Your task to perform on an android device: open app "Lyft - Rideshare, Bikes, Scooters & Transit" (install if not already installed) and go to login screen Image 0: 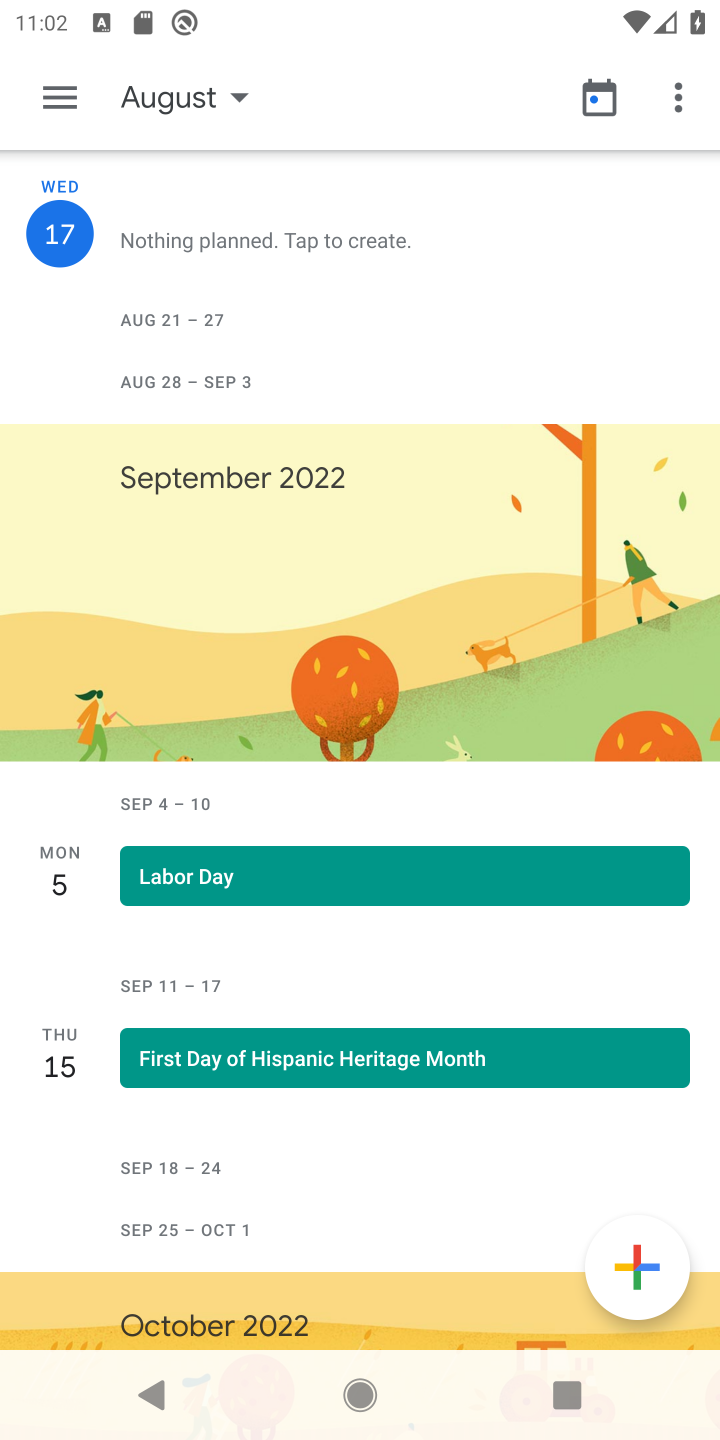
Step 0: press home button
Your task to perform on an android device: open app "Lyft - Rideshare, Bikes, Scooters & Transit" (install if not already installed) and go to login screen Image 1: 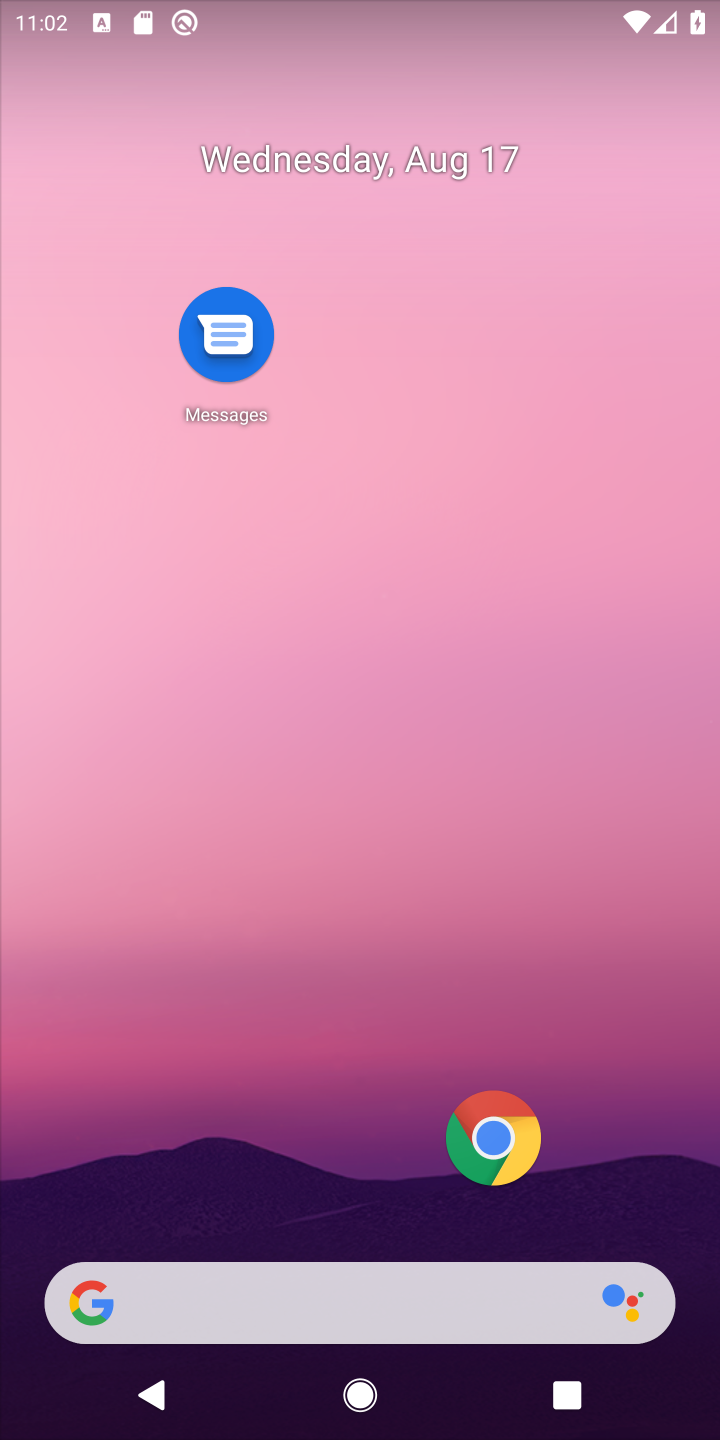
Step 1: drag from (230, 827) to (234, 494)
Your task to perform on an android device: open app "Lyft - Rideshare, Bikes, Scooters & Transit" (install if not already installed) and go to login screen Image 2: 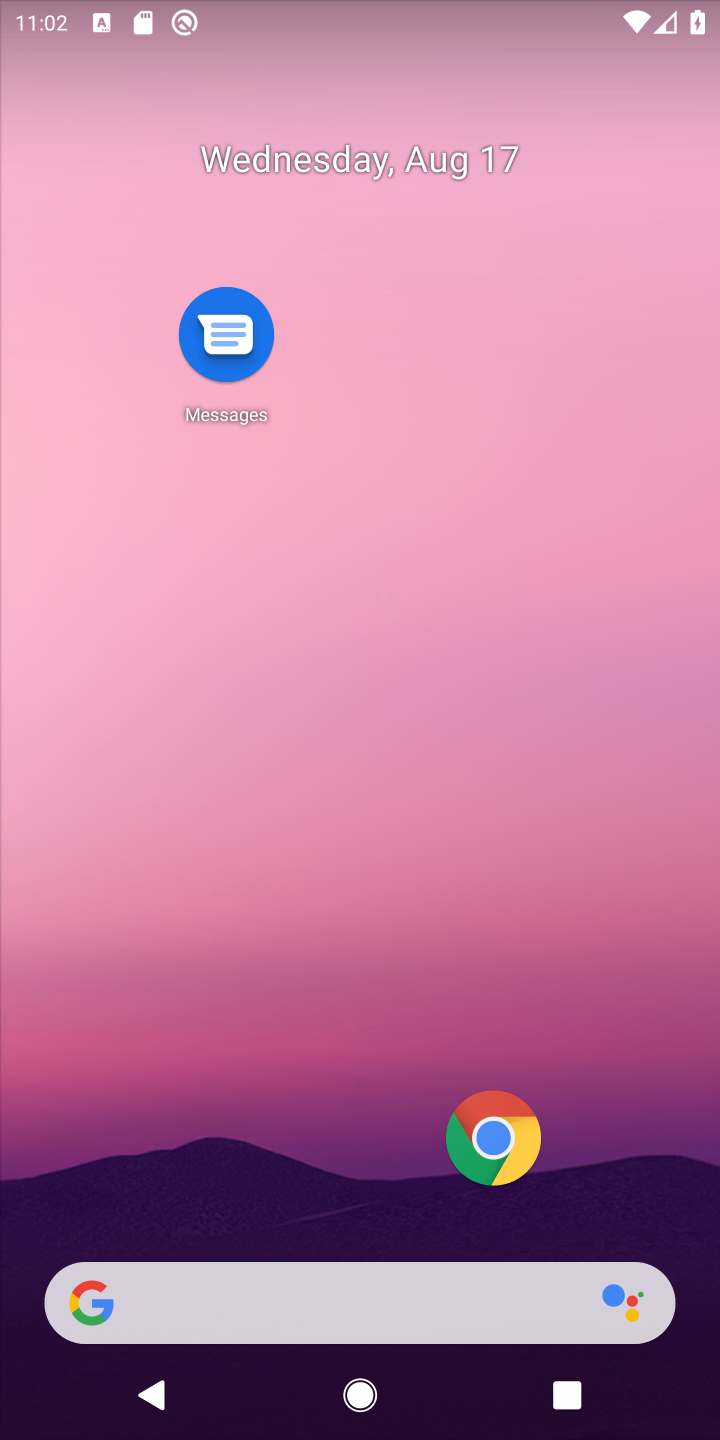
Step 2: drag from (329, 925) to (364, 108)
Your task to perform on an android device: open app "Lyft - Rideshare, Bikes, Scooters & Transit" (install if not already installed) and go to login screen Image 3: 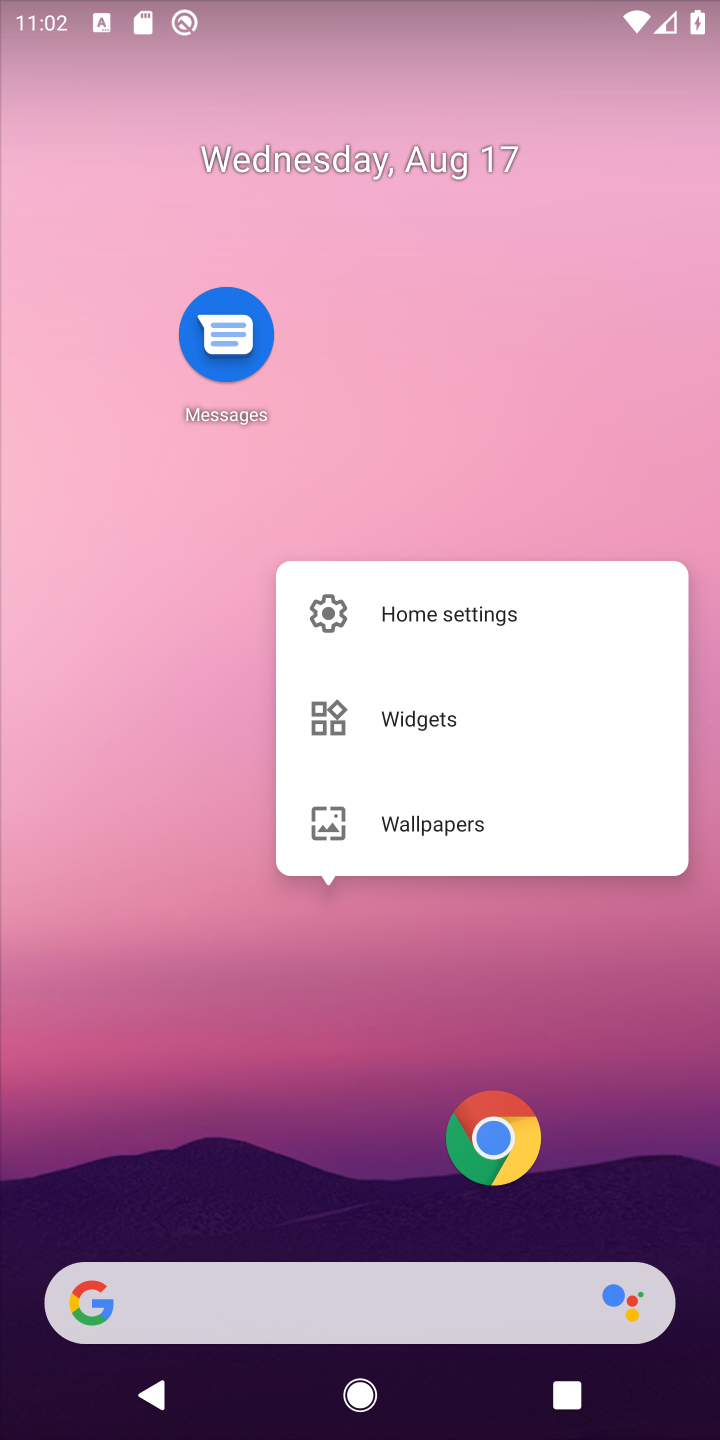
Step 3: click (133, 1084)
Your task to perform on an android device: open app "Lyft - Rideshare, Bikes, Scooters & Transit" (install if not already installed) and go to login screen Image 4: 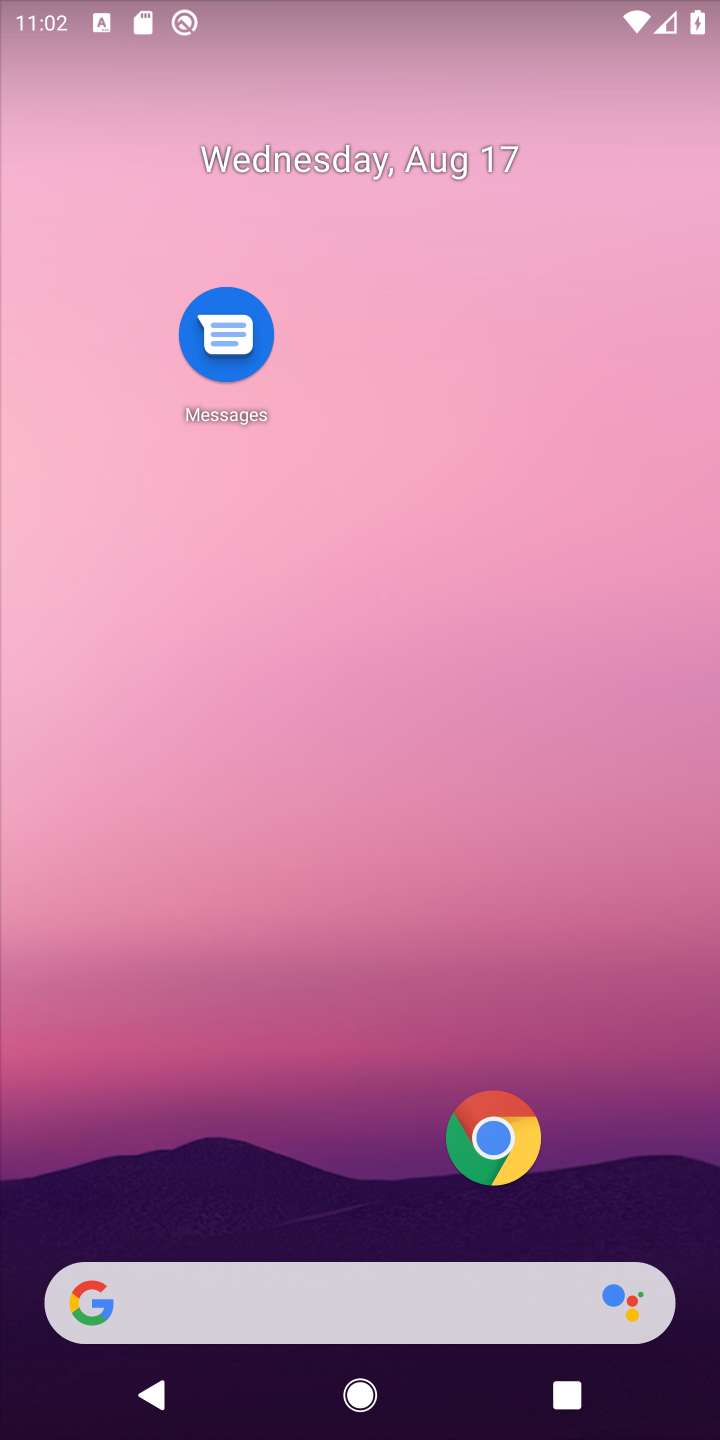
Step 4: drag from (339, 1184) to (359, 566)
Your task to perform on an android device: open app "Lyft - Rideshare, Bikes, Scooters & Transit" (install if not already installed) and go to login screen Image 5: 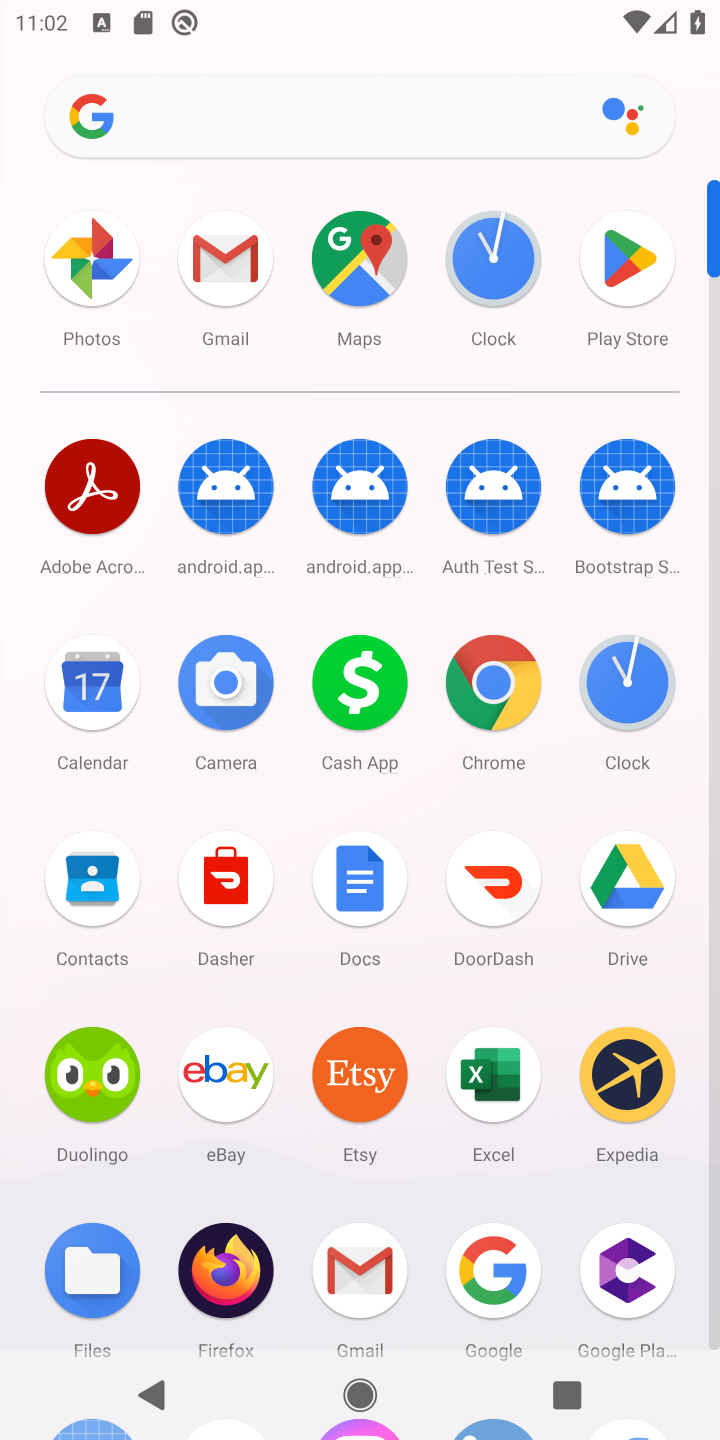
Step 5: click (635, 253)
Your task to perform on an android device: open app "Lyft - Rideshare, Bikes, Scooters & Transit" (install if not already installed) and go to login screen Image 6: 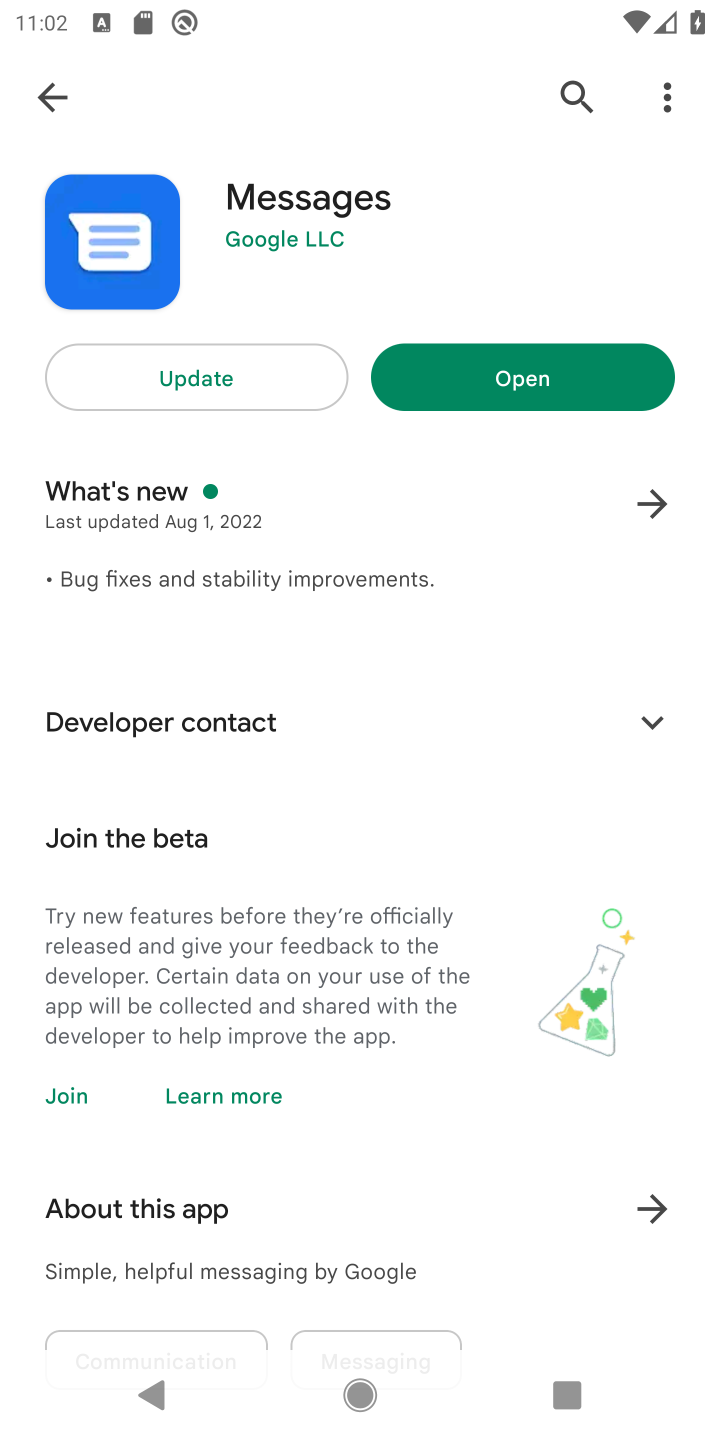
Step 6: click (44, 90)
Your task to perform on an android device: open app "Lyft - Rideshare, Bikes, Scooters & Transit" (install if not already installed) and go to login screen Image 7: 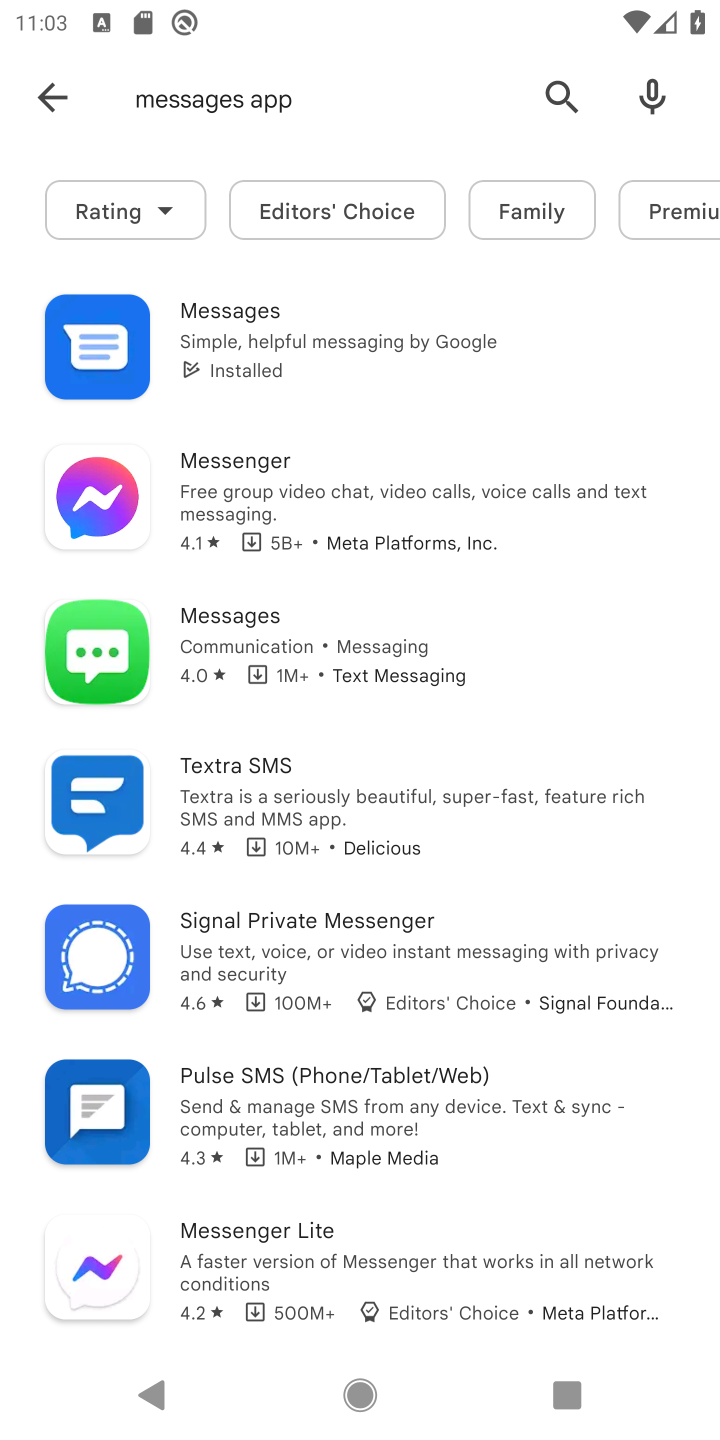
Step 7: click (68, 93)
Your task to perform on an android device: open app "Lyft - Rideshare, Bikes, Scooters & Transit" (install if not already installed) and go to login screen Image 8: 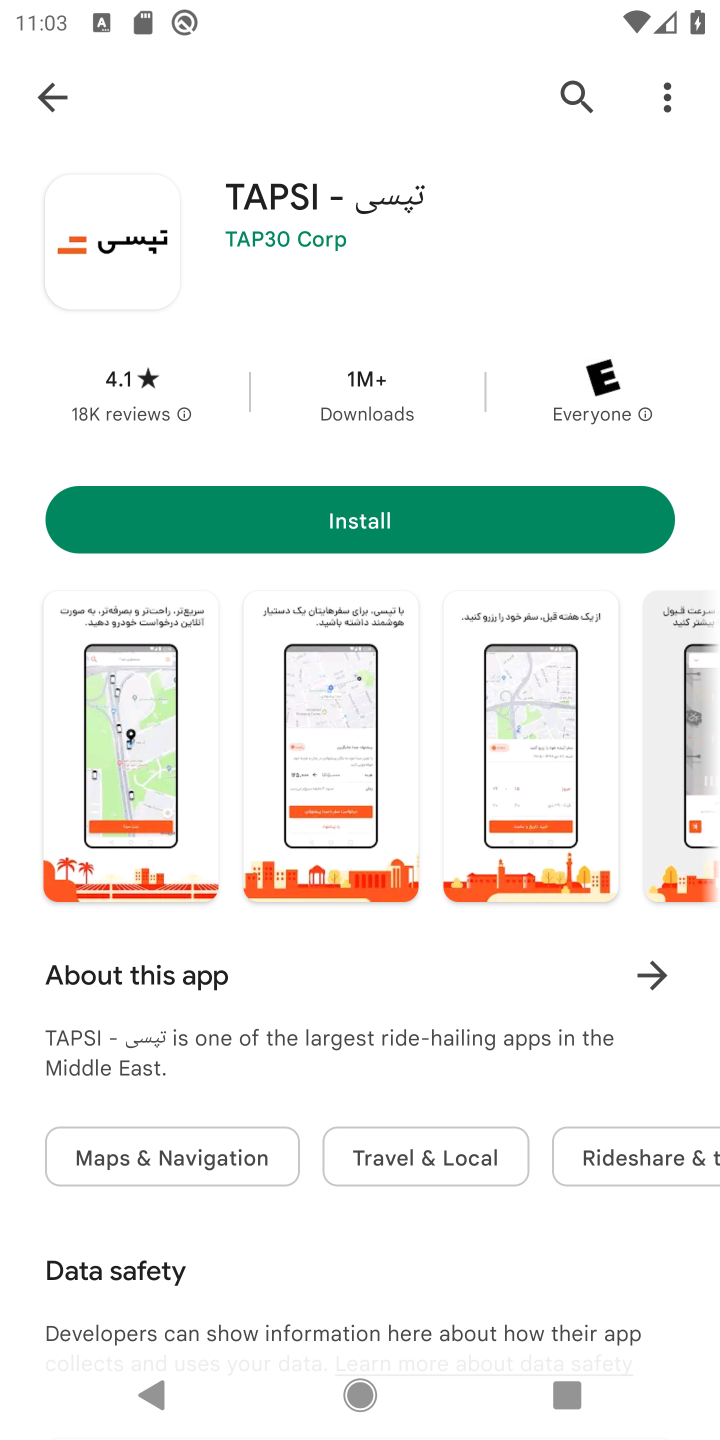
Step 8: click (68, 93)
Your task to perform on an android device: open app "Lyft - Rideshare, Bikes, Scooters & Transit" (install if not already installed) and go to login screen Image 9: 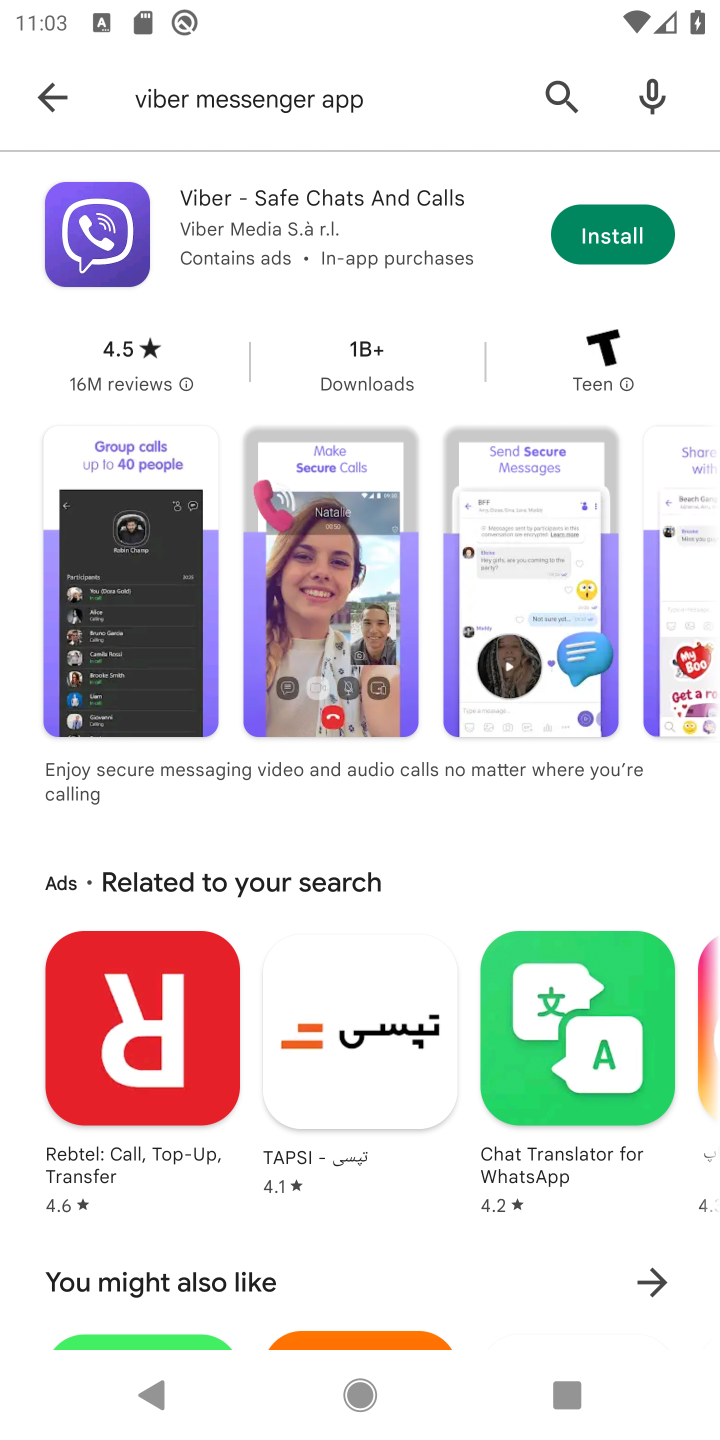
Step 9: click (68, 93)
Your task to perform on an android device: open app "Lyft - Rideshare, Bikes, Scooters & Transit" (install if not already installed) and go to login screen Image 10: 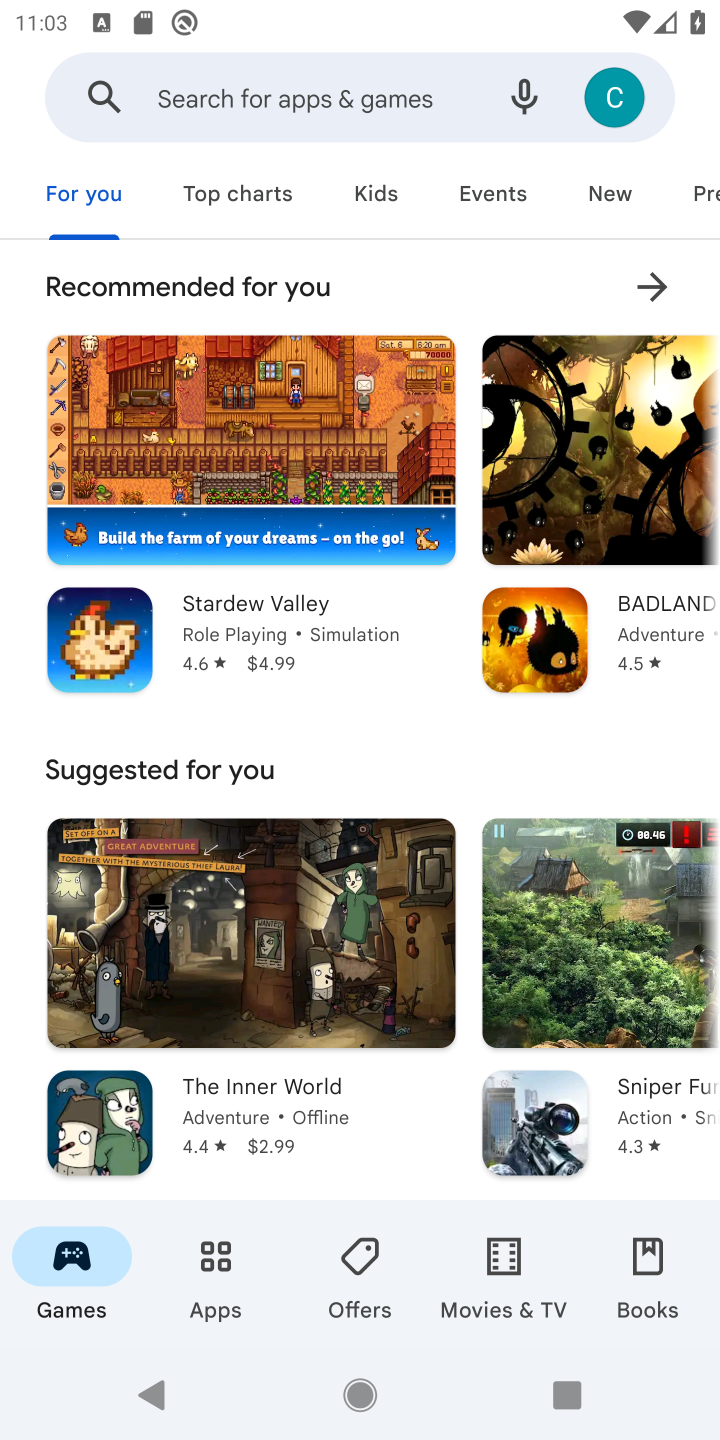
Step 10: click (307, 101)
Your task to perform on an android device: open app "Lyft - Rideshare, Bikes, Scooters & Transit" (install if not already installed) and go to login screen Image 11: 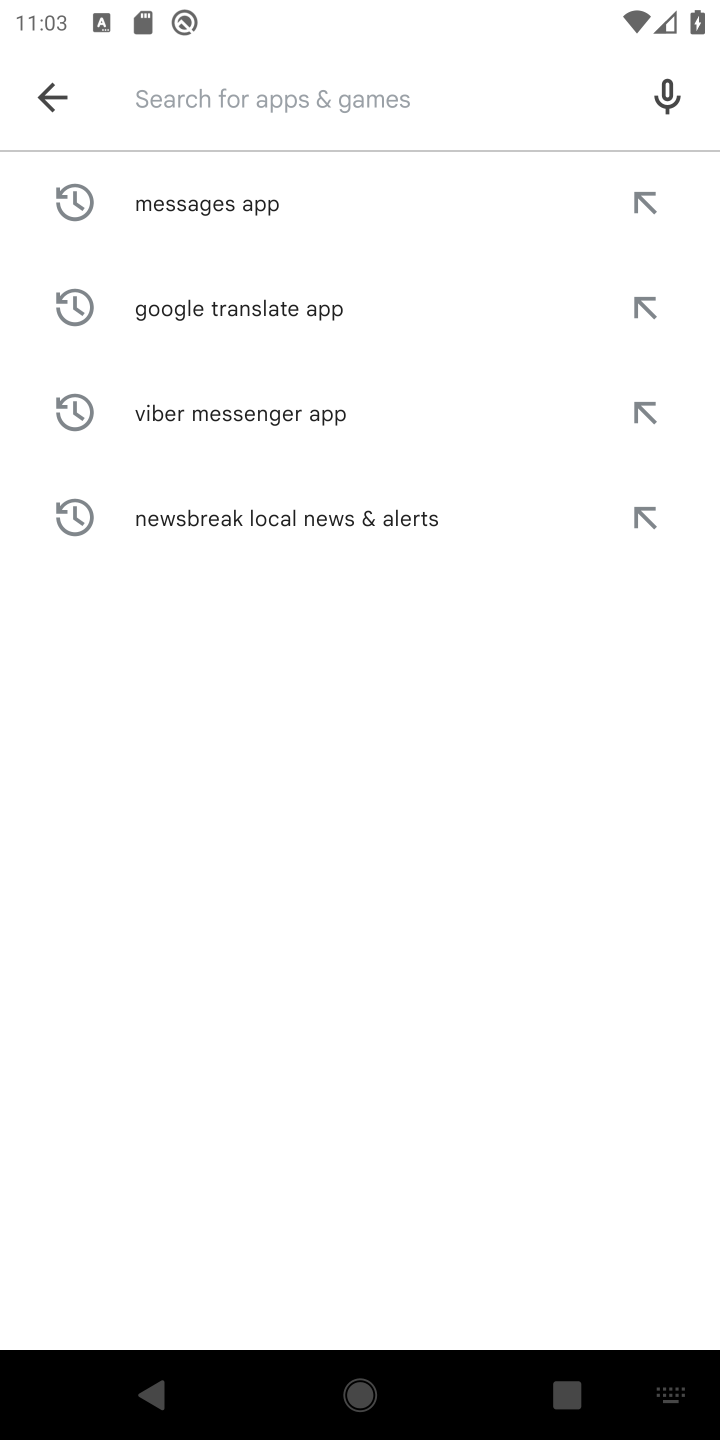
Step 11: type "Lyft - Rideshare, Bikes, Scooters & Transit "
Your task to perform on an android device: open app "Lyft - Rideshare, Bikes, Scooters & Transit" (install if not already installed) and go to login screen Image 12: 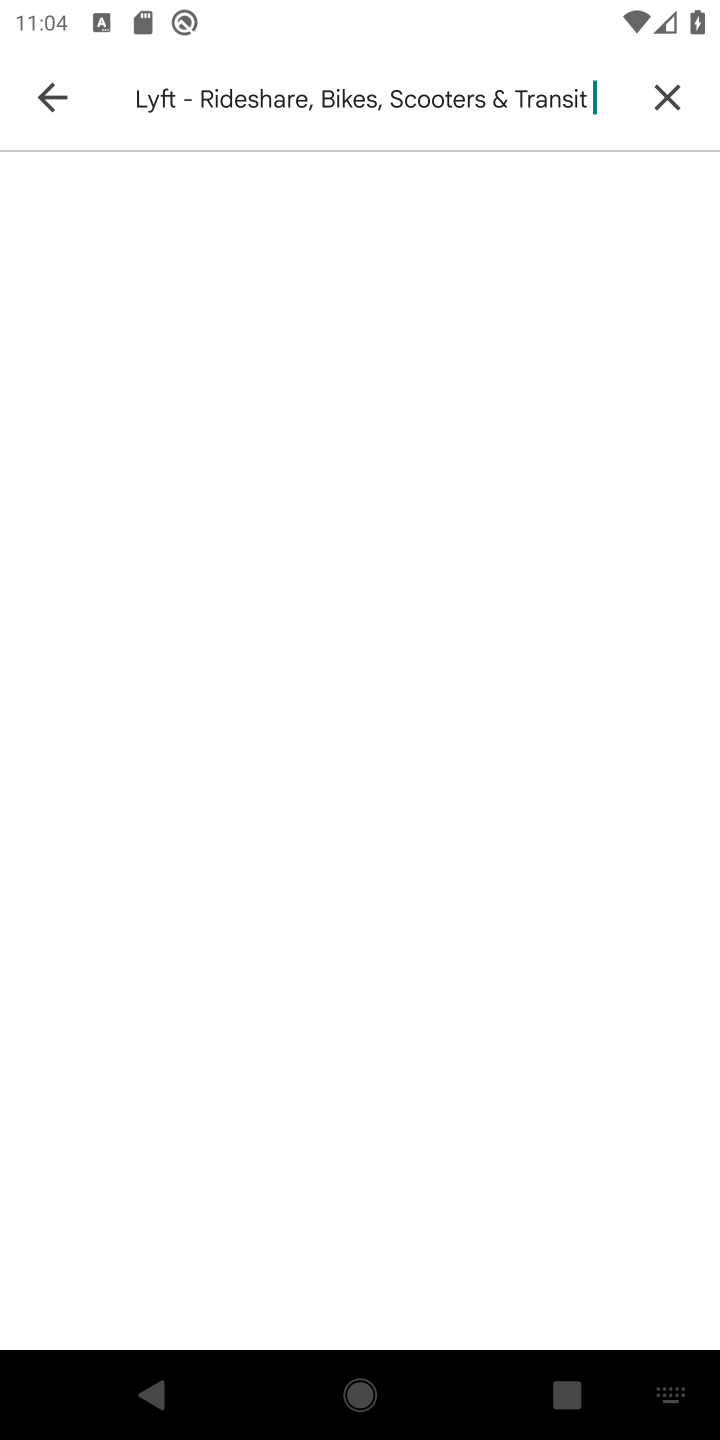
Step 12: task complete